Your task to perform on an android device: turn off improve location accuracy Image 0: 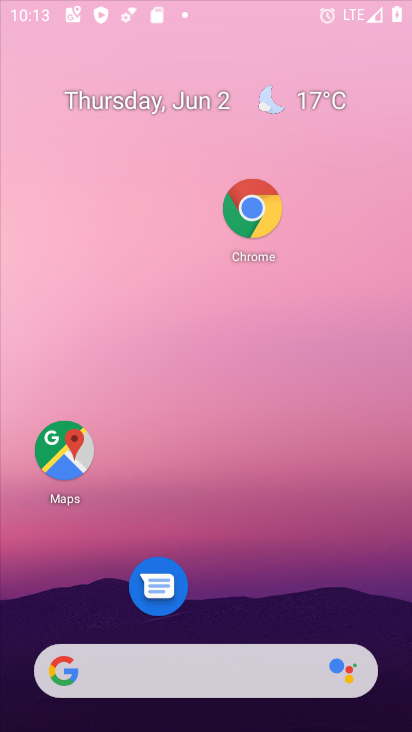
Step 0: press home button
Your task to perform on an android device: turn off improve location accuracy Image 1: 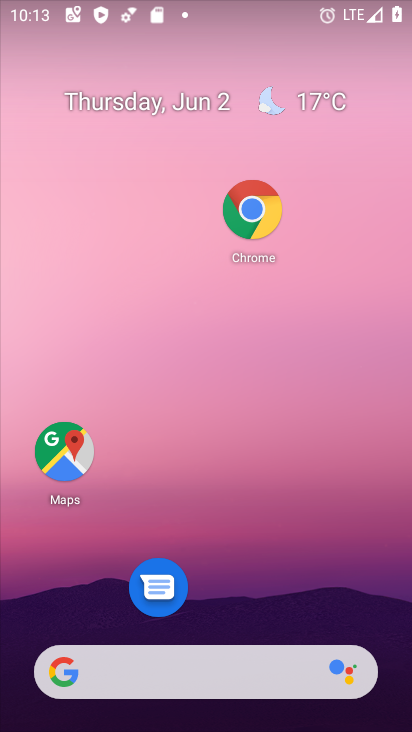
Step 1: drag from (211, 616) to (214, 31)
Your task to perform on an android device: turn off improve location accuracy Image 2: 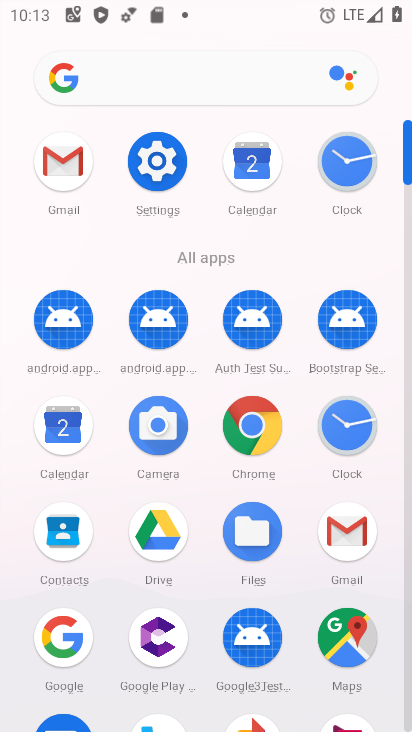
Step 2: click (154, 155)
Your task to perform on an android device: turn off improve location accuracy Image 3: 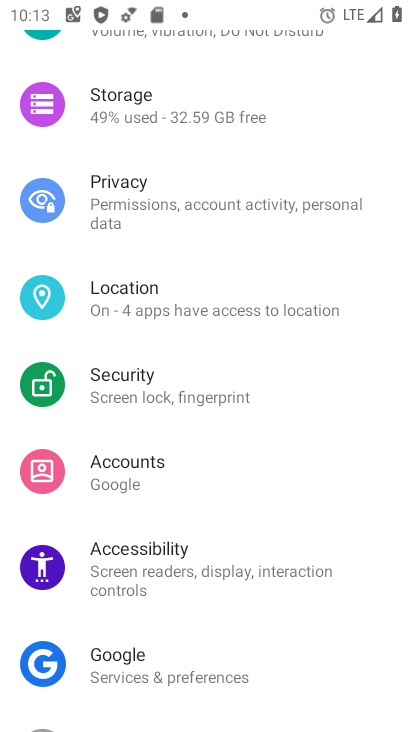
Step 3: click (187, 295)
Your task to perform on an android device: turn off improve location accuracy Image 4: 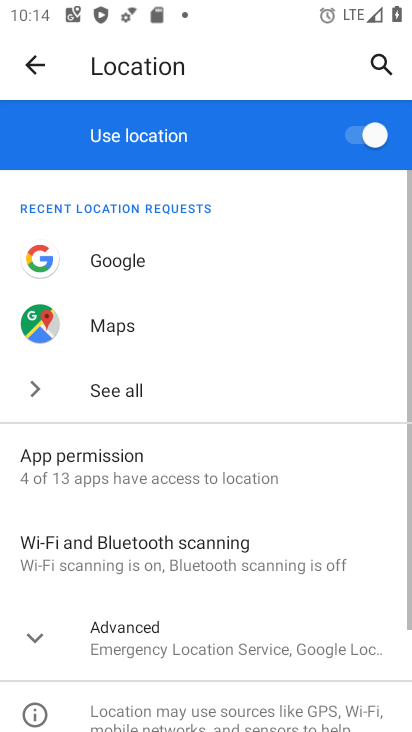
Step 4: click (38, 640)
Your task to perform on an android device: turn off improve location accuracy Image 5: 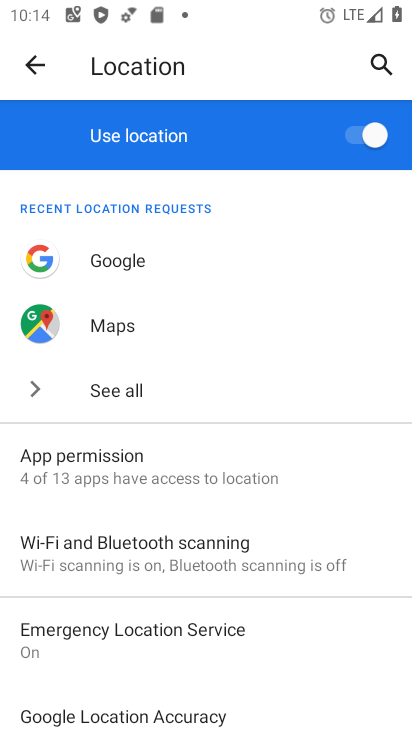
Step 5: click (226, 708)
Your task to perform on an android device: turn off improve location accuracy Image 6: 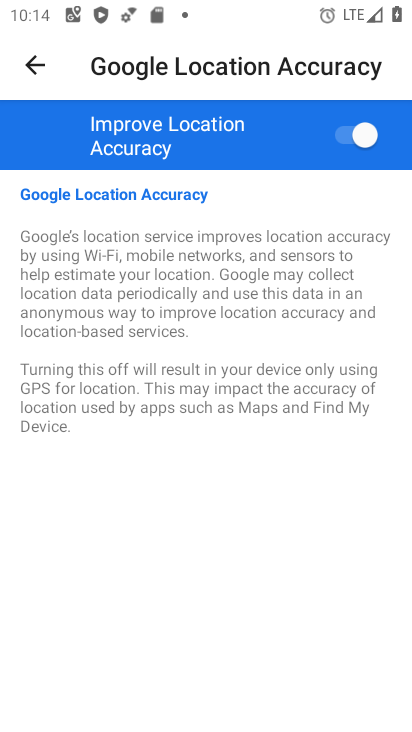
Step 6: click (351, 134)
Your task to perform on an android device: turn off improve location accuracy Image 7: 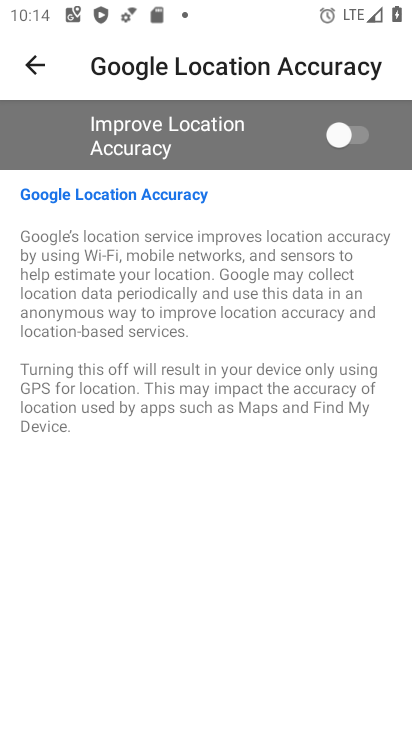
Step 7: task complete